Your task to perform on an android device: open chrome and create a bookmark for the current page Image 0: 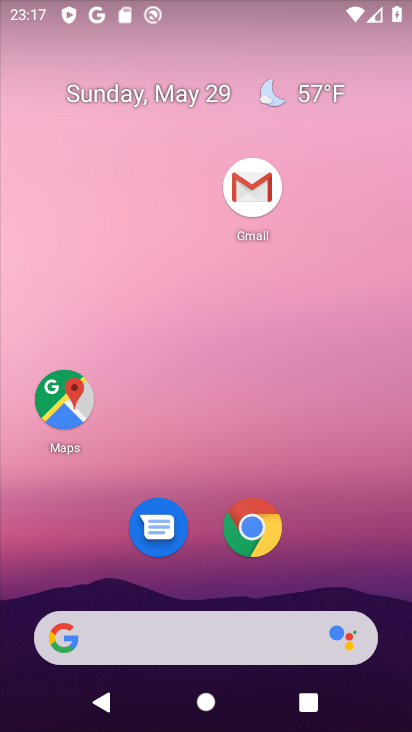
Step 0: click (258, 530)
Your task to perform on an android device: open chrome and create a bookmark for the current page Image 1: 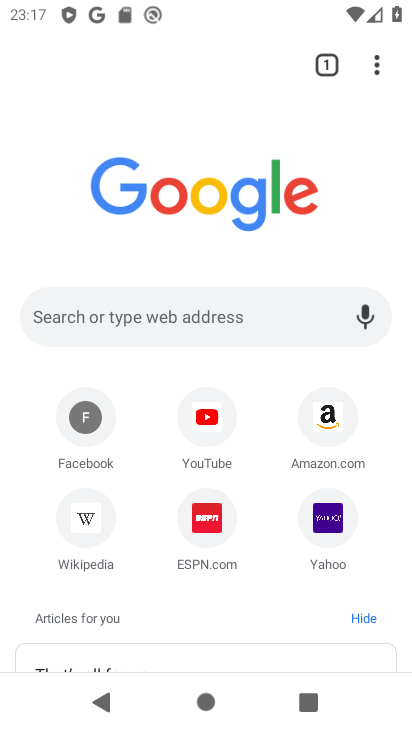
Step 1: click (378, 65)
Your task to perform on an android device: open chrome and create a bookmark for the current page Image 2: 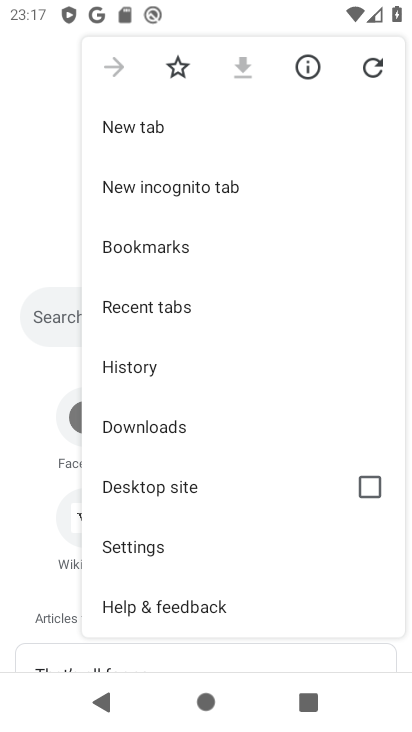
Step 2: click (178, 70)
Your task to perform on an android device: open chrome and create a bookmark for the current page Image 3: 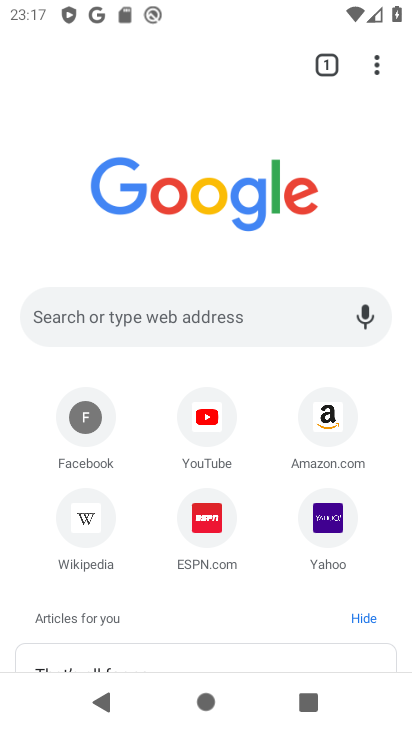
Step 3: task complete